Your task to perform on an android device: Open settings Image 0: 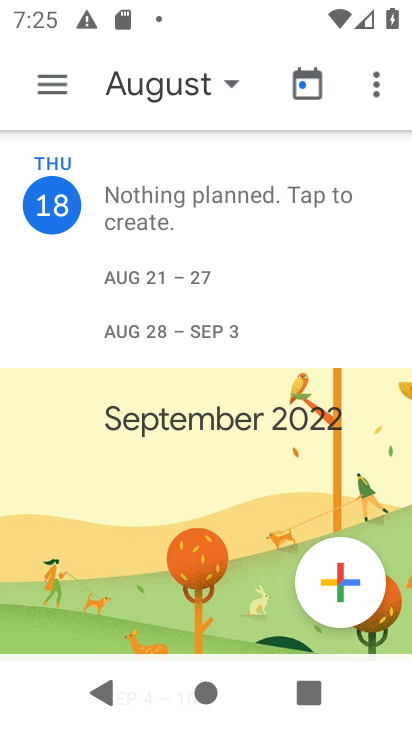
Step 0: click (258, 519)
Your task to perform on an android device: Open settings Image 1: 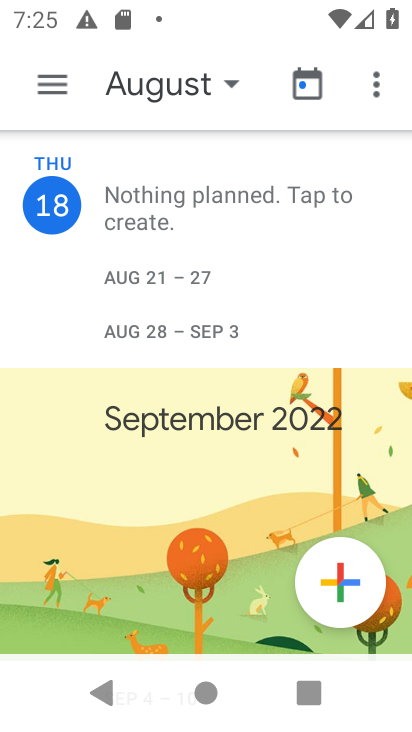
Step 1: press home button
Your task to perform on an android device: Open settings Image 2: 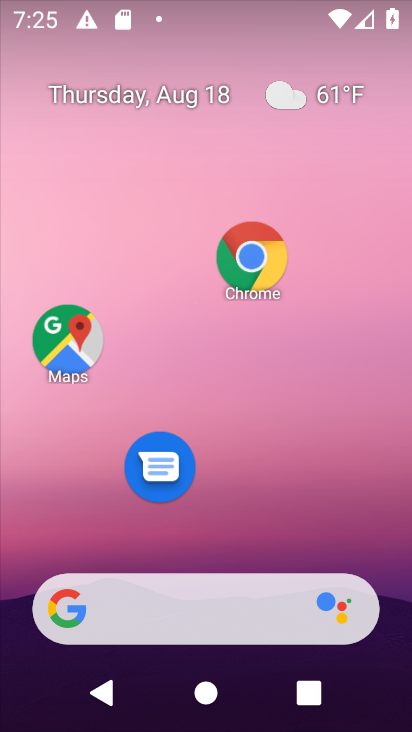
Step 2: click (255, 261)
Your task to perform on an android device: Open settings Image 3: 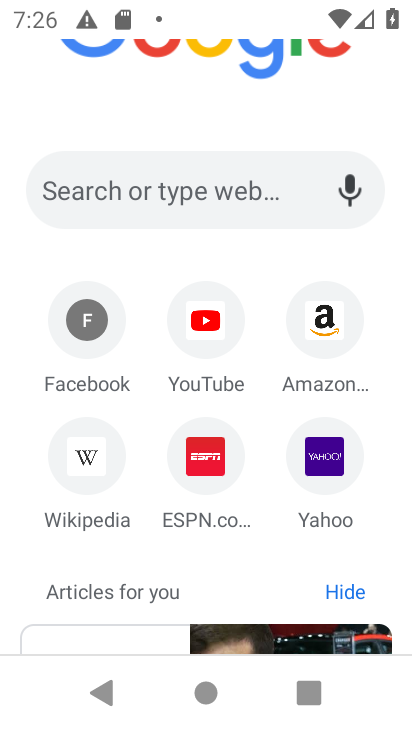
Step 3: task complete